Your task to perform on an android device: What's the weather? Image 0: 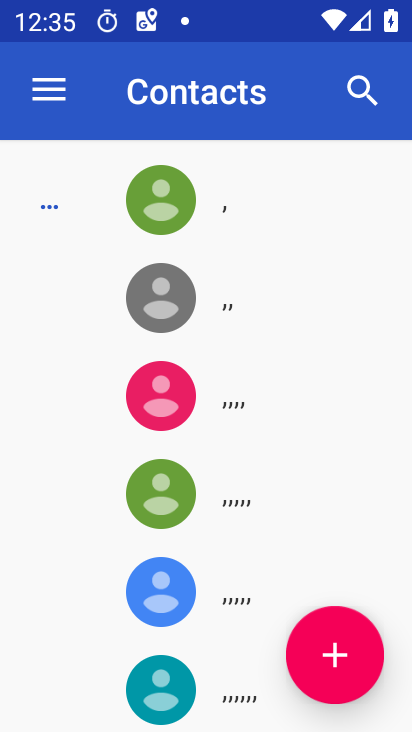
Step 0: press home button
Your task to perform on an android device: What's the weather? Image 1: 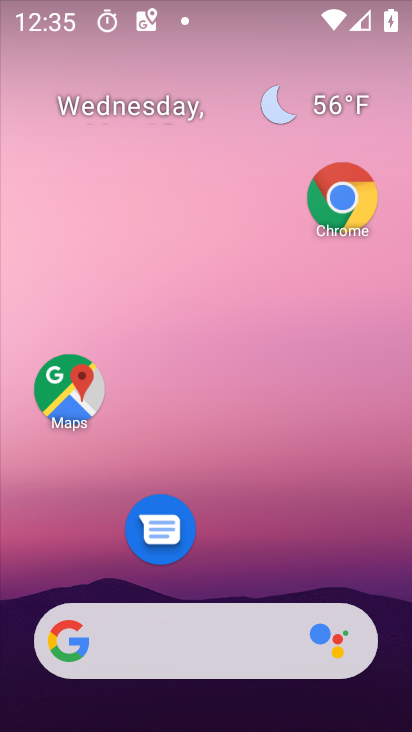
Step 1: click (337, 103)
Your task to perform on an android device: What's the weather? Image 2: 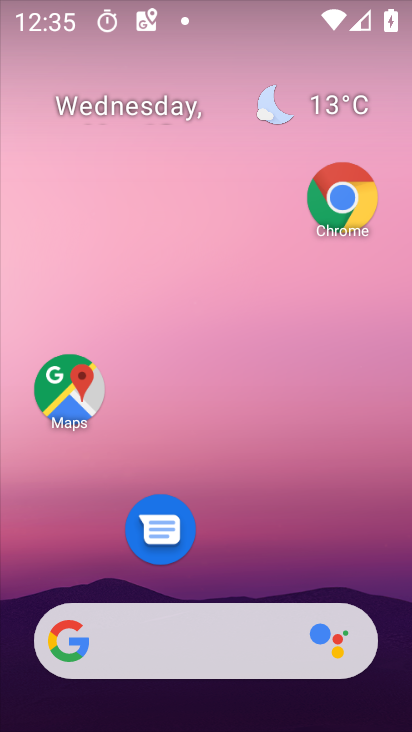
Step 2: click (316, 114)
Your task to perform on an android device: What's the weather? Image 3: 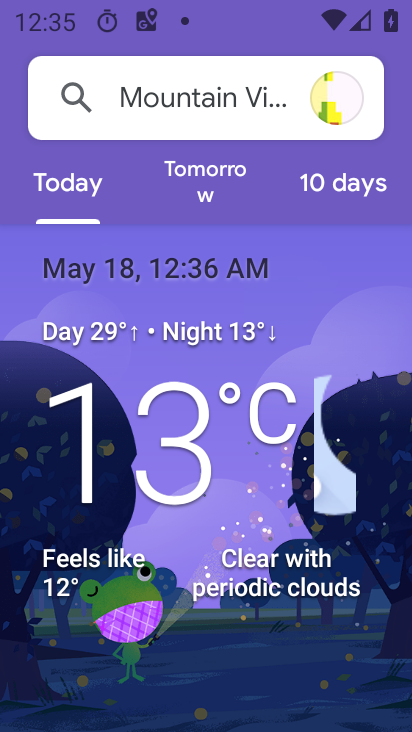
Step 3: task complete